Your task to perform on an android device: allow cookies in the chrome app Image 0: 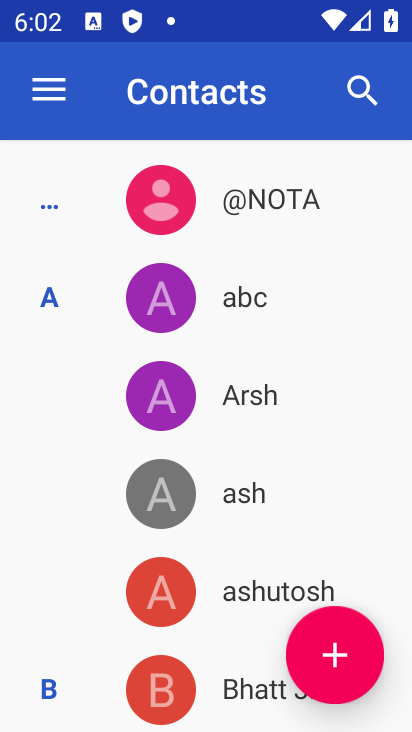
Step 0: press home button
Your task to perform on an android device: allow cookies in the chrome app Image 1: 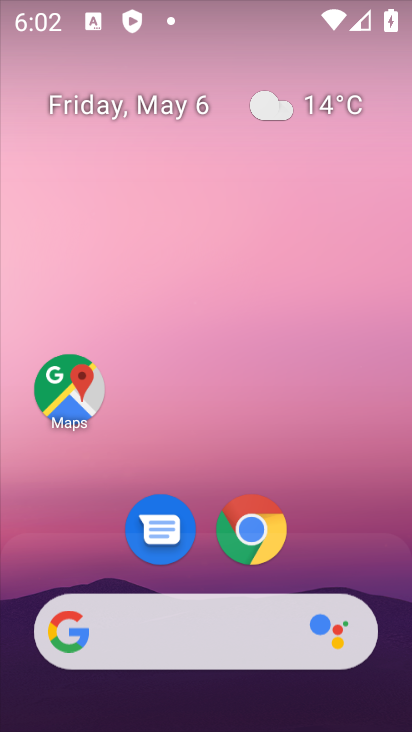
Step 1: click (247, 527)
Your task to perform on an android device: allow cookies in the chrome app Image 2: 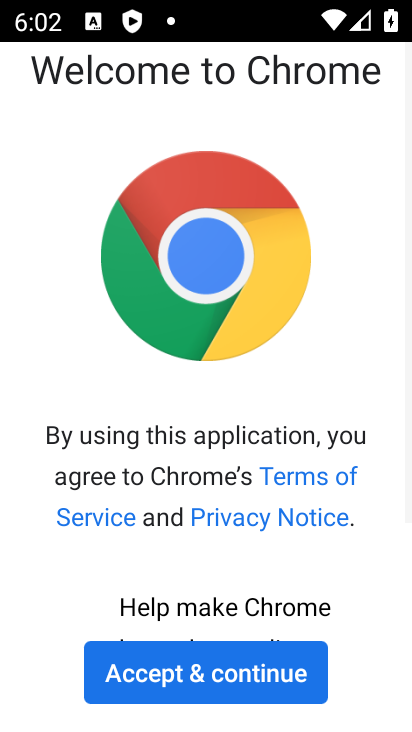
Step 2: click (267, 662)
Your task to perform on an android device: allow cookies in the chrome app Image 3: 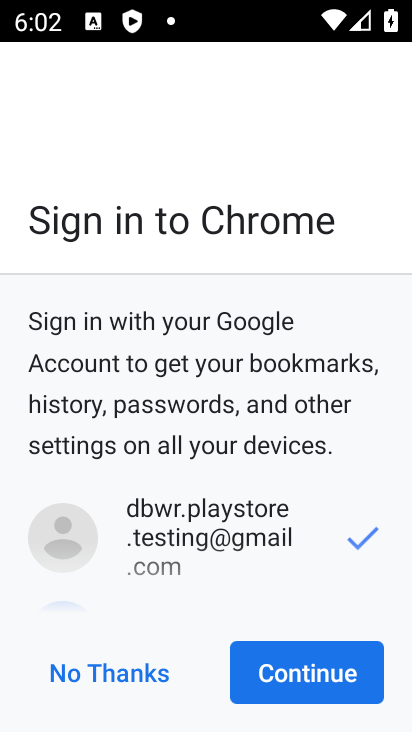
Step 3: click (339, 665)
Your task to perform on an android device: allow cookies in the chrome app Image 4: 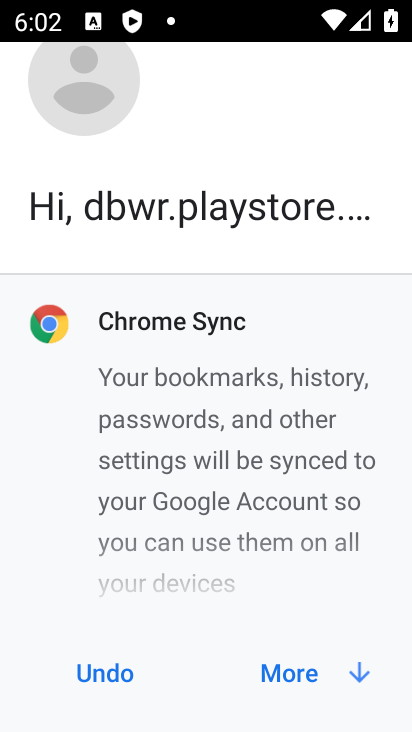
Step 4: click (343, 664)
Your task to perform on an android device: allow cookies in the chrome app Image 5: 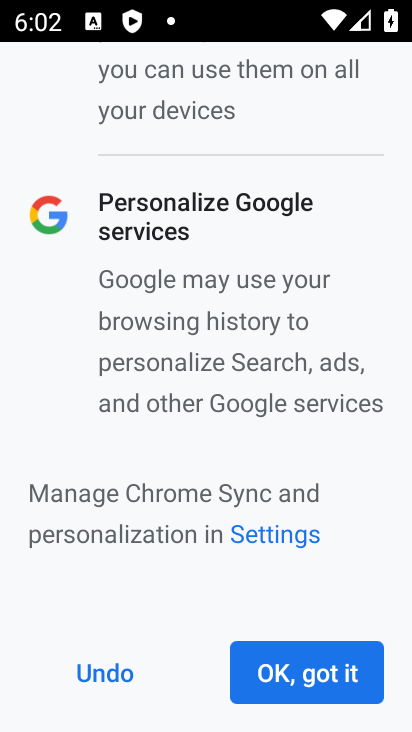
Step 5: click (325, 662)
Your task to perform on an android device: allow cookies in the chrome app Image 6: 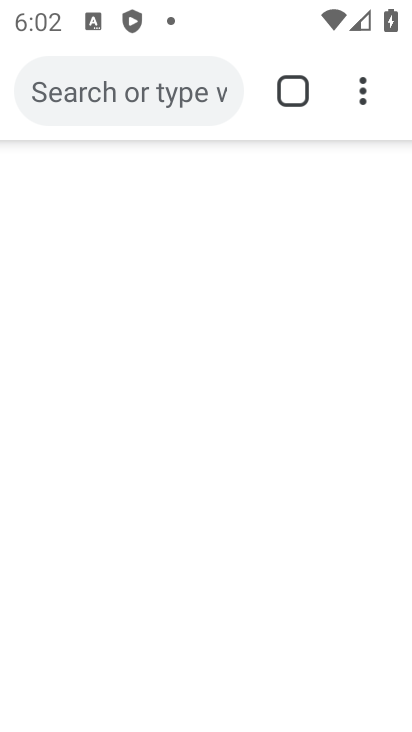
Step 6: click (356, 84)
Your task to perform on an android device: allow cookies in the chrome app Image 7: 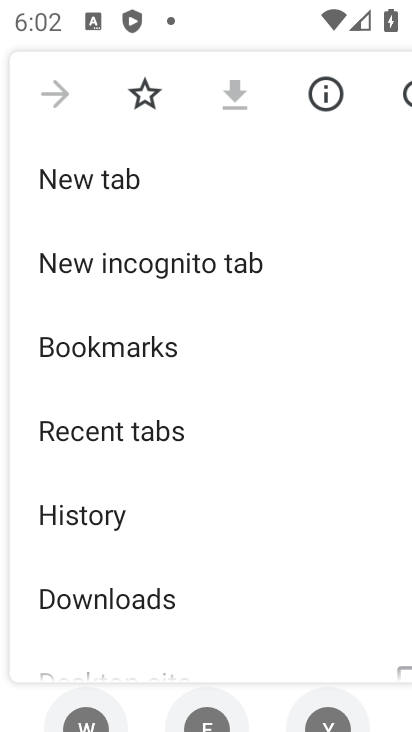
Step 7: click (147, 65)
Your task to perform on an android device: allow cookies in the chrome app Image 8: 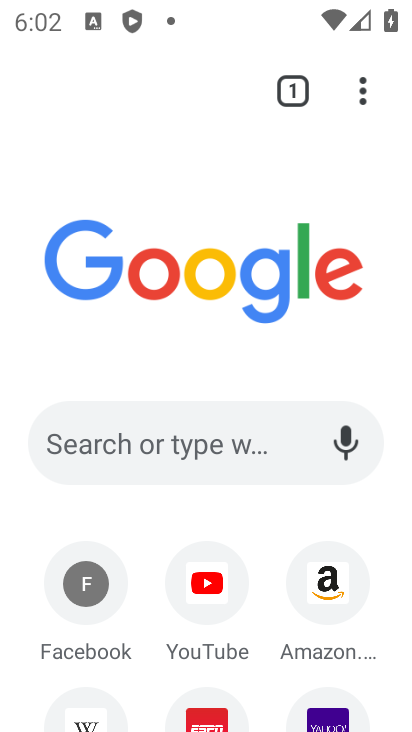
Step 8: click (356, 86)
Your task to perform on an android device: allow cookies in the chrome app Image 9: 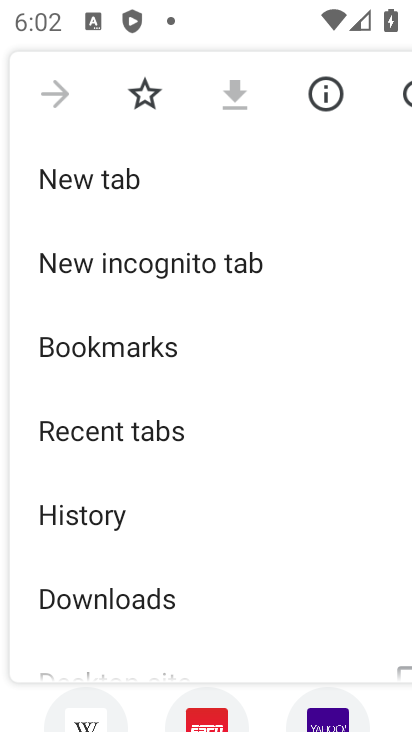
Step 9: drag from (299, 639) to (226, 165)
Your task to perform on an android device: allow cookies in the chrome app Image 10: 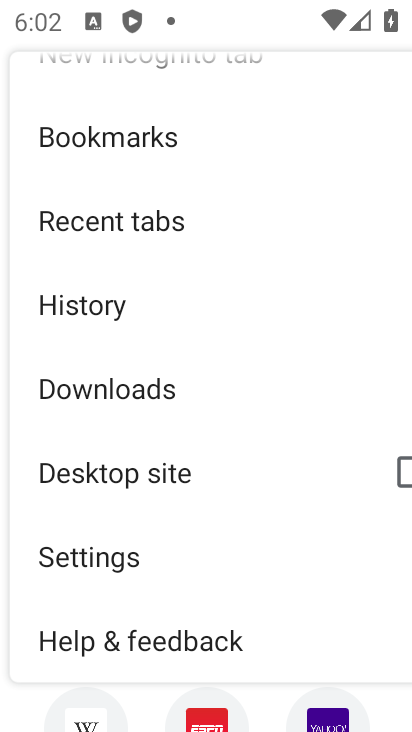
Step 10: click (179, 544)
Your task to perform on an android device: allow cookies in the chrome app Image 11: 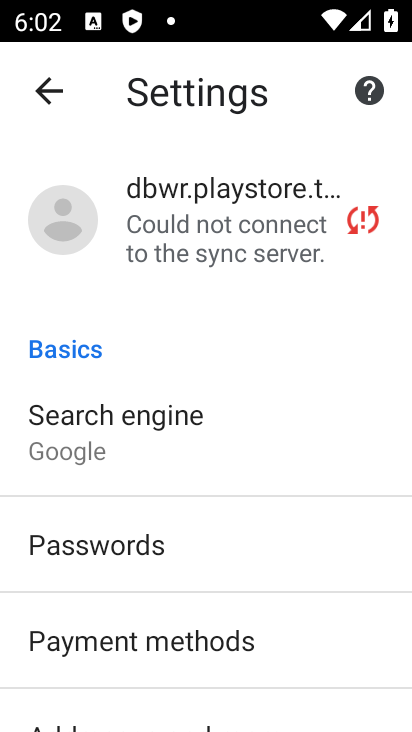
Step 11: drag from (261, 599) to (193, 156)
Your task to perform on an android device: allow cookies in the chrome app Image 12: 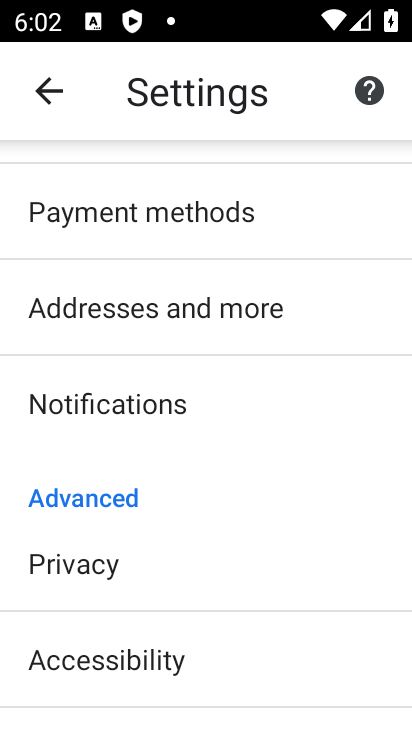
Step 12: drag from (257, 651) to (188, 213)
Your task to perform on an android device: allow cookies in the chrome app Image 13: 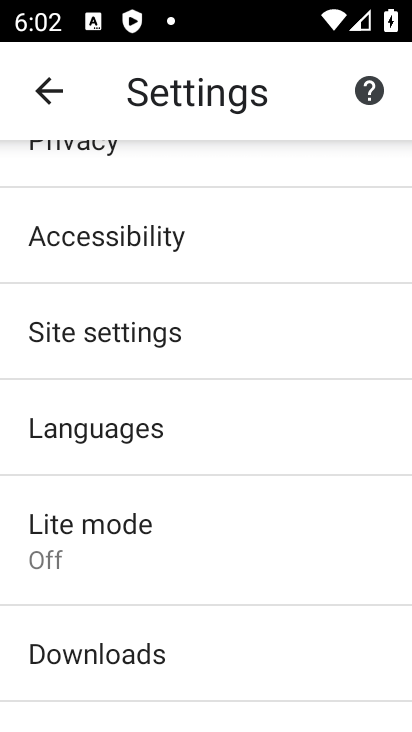
Step 13: click (106, 341)
Your task to perform on an android device: allow cookies in the chrome app Image 14: 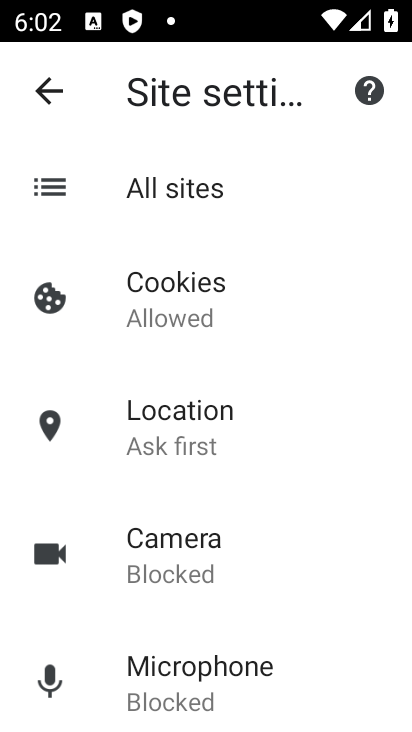
Step 14: click (226, 291)
Your task to perform on an android device: allow cookies in the chrome app Image 15: 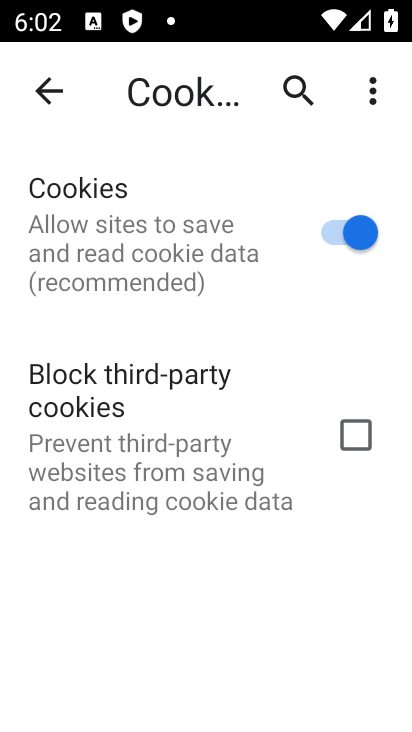
Step 15: task complete